Your task to perform on an android device: Open Google Chrome and click the shortcut for Amazon.com Image 0: 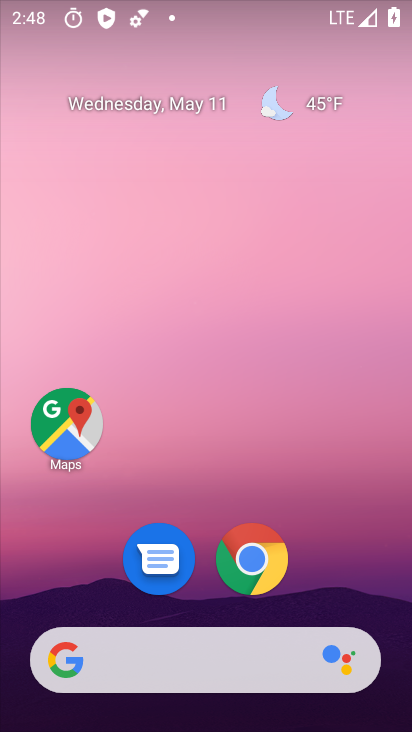
Step 0: click (261, 563)
Your task to perform on an android device: Open Google Chrome and click the shortcut for Amazon.com Image 1: 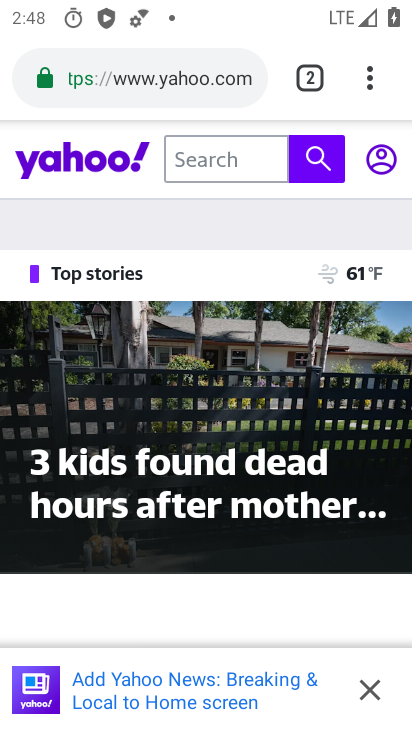
Step 1: click (317, 76)
Your task to perform on an android device: Open Google Chrome and click the shortcut for Amazon.com Image 2: 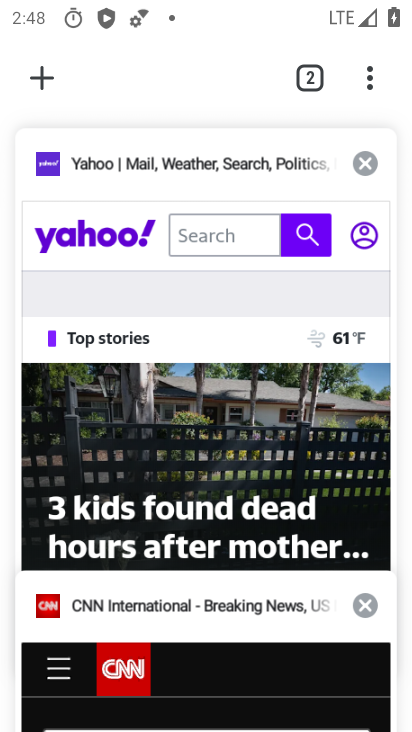
Step 2: click (36, 76)
Your task to perform on an android device: Open Google Chrome and click the shortcut for Amazon.com Image 3: 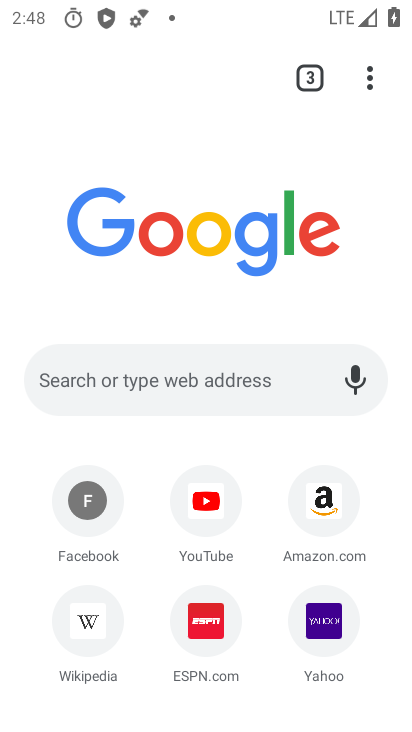
Step 3: click (327, 501)
Your task to perform on an android device: Open Google Chrome and click the shortcut for Amazon.com Image 4: 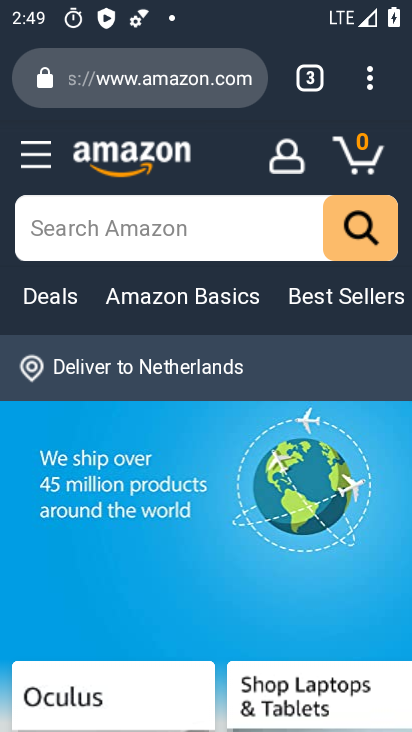
Step 4: task complete